Your task to perform on an android device: turn off notifications in google photos Image 0: 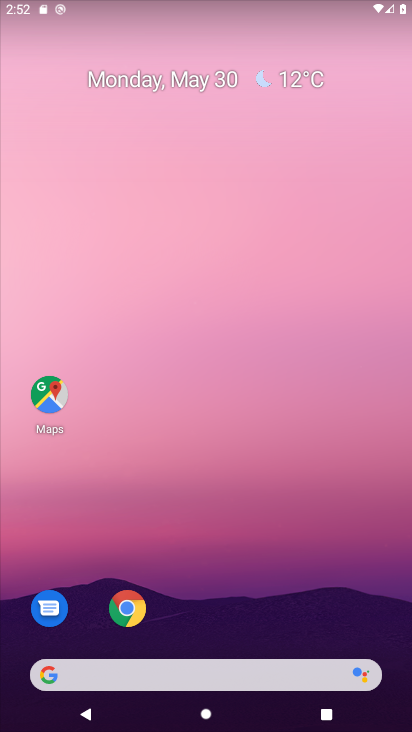
Step 0: press home button
Your task to perform on an android device: turn off notifications in google photos Image 1: 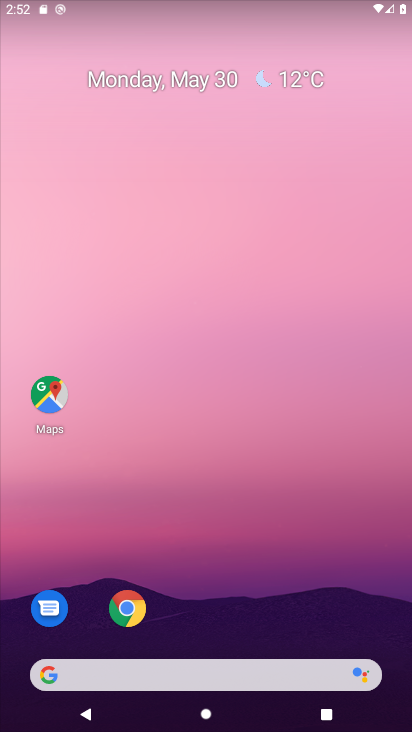
Step 1: drag from (274, 611) to (237, 22)
Your task to perform on an android device: turn off notifications in google photos Image 2: 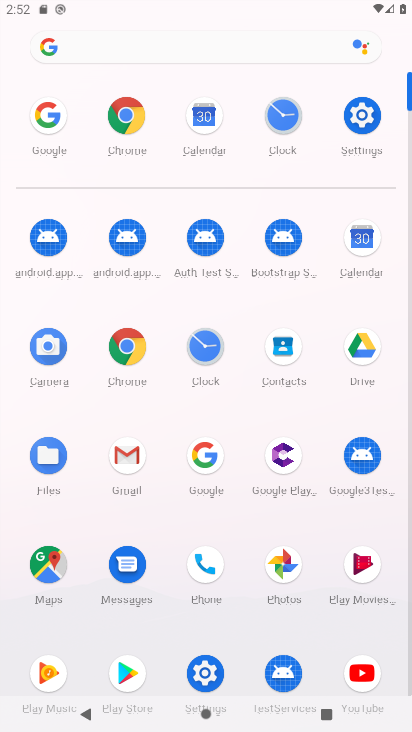
Step 2: click (359, 118)
Your task to perform on an android device: turn off notifications in google photos Image 3: 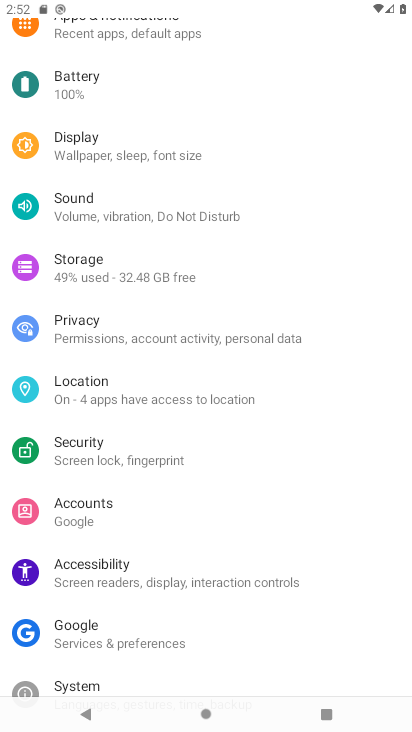
Step 3: press back button
Your task to perform on an android device: turn off notifications in google photos Image 4: 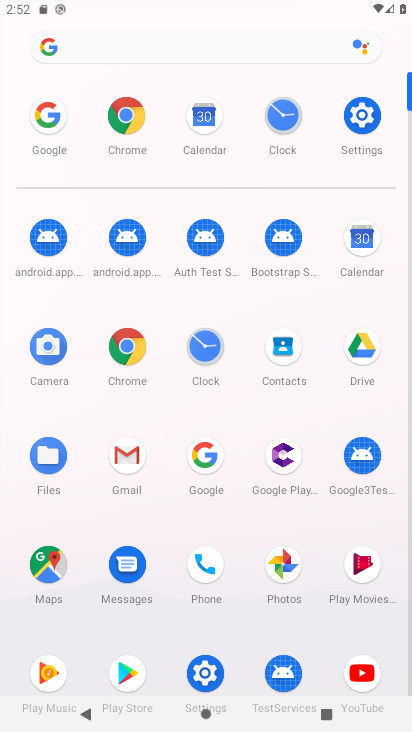
Step 4: click (281, 585)
Your task to perform on an android device: turn off notifications in google photos Image 5: 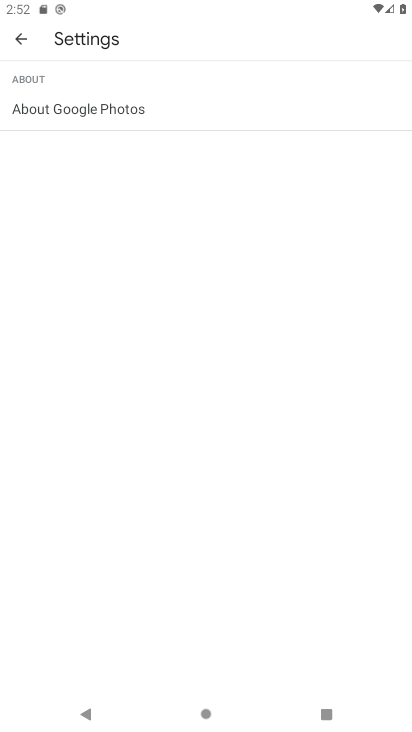
Step 5: click (21, 37)
Your task to perform on an android device: turn off notifications in google photos Image 6: 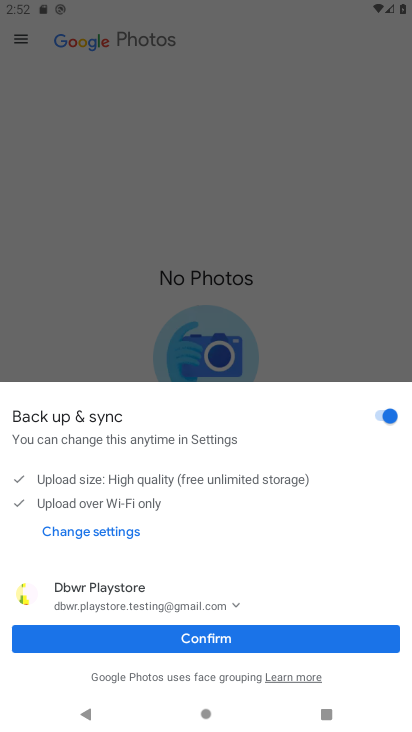
Step 6: press back button
Your task to perform on an android device: turn off notifications in google photos Image 7: 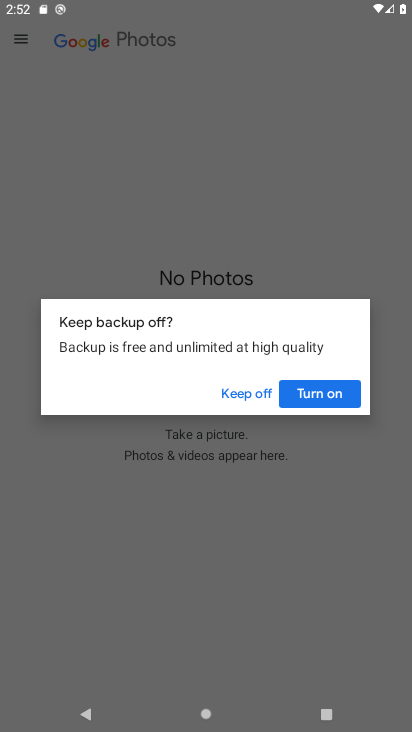
Step 7: press back button
Your task to perform on an android device: turn off notifications in google photos Image 8: 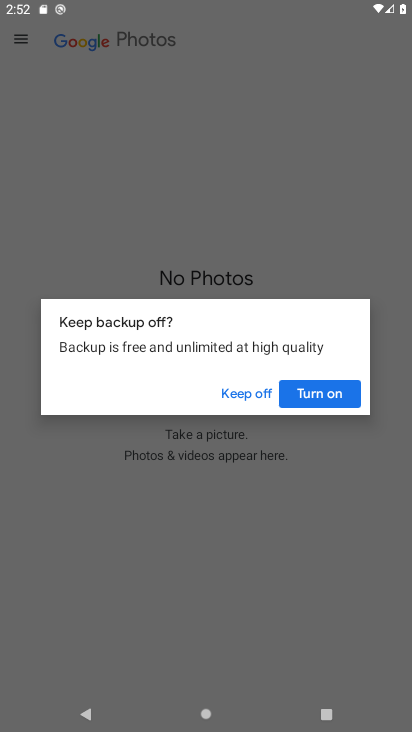
Step 8: press home button
Your task to perform on an android device: turn off notifications in google photos Image 9: 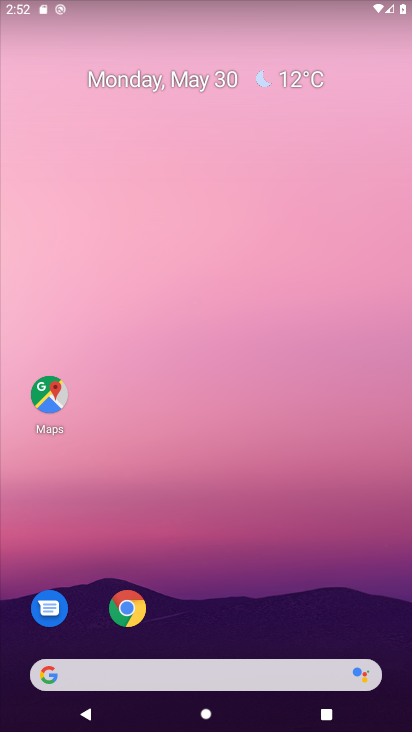
Step 9: drag from (271, 616) to (209, 59)
Your task to perform on an android device: turn off notifications in google photos Image 10: 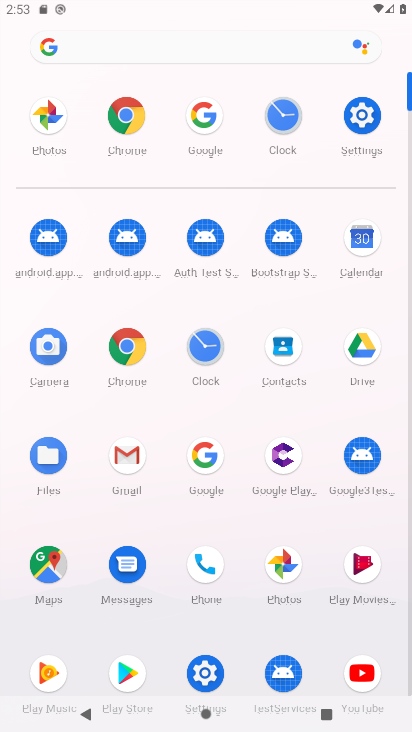
Step 10: click (281, 567)
Your task to perform on an android device: turn off notifications in google photos Image 11: 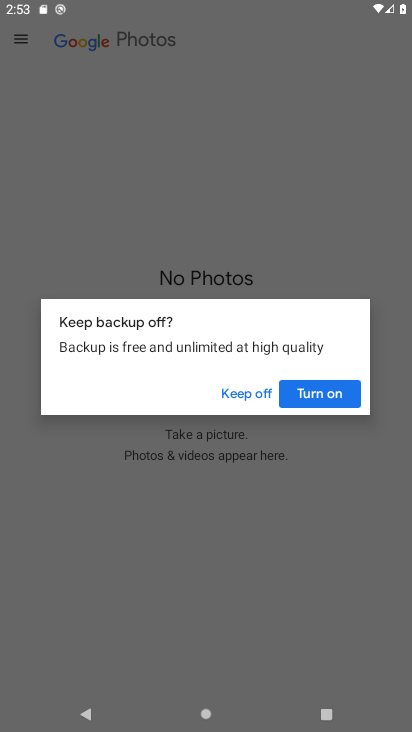
Step 11: click (340, 397)
Your task to perform on an android device: turn off notifications in google photos Image 12: 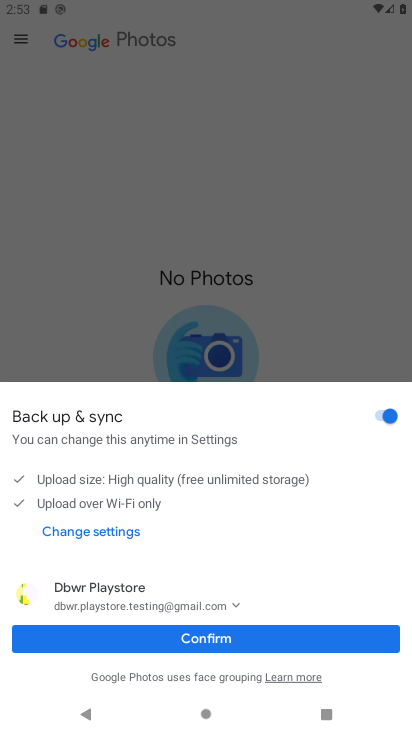
Step 12: click (220, 638)
Your task to perform on an android device: turn off notifications in google photos Image 13: 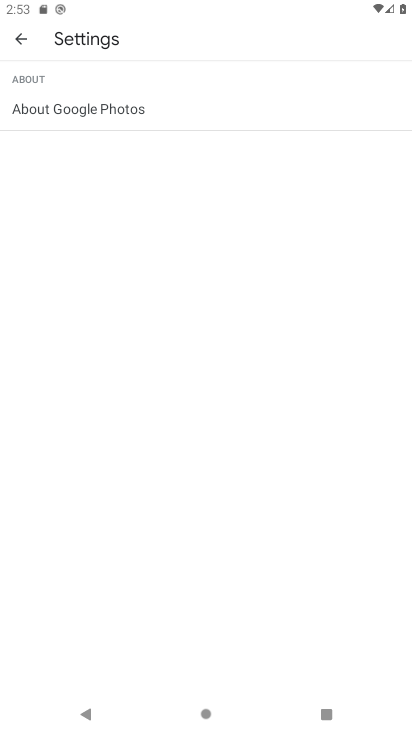
Step 13: click (27, 37)
Your task to perform on an android device: turn off notifications in google photos Image 14: 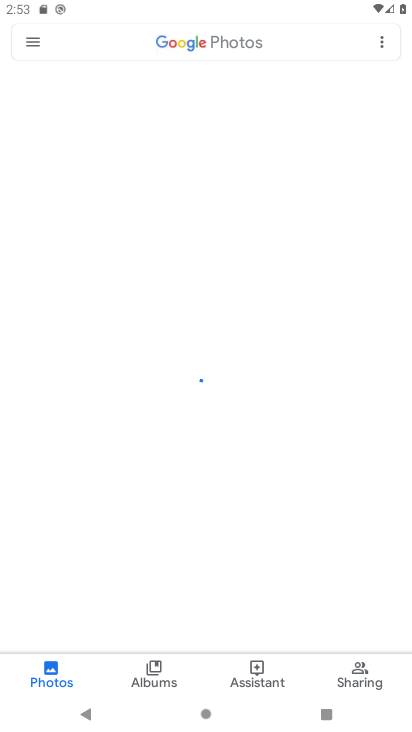
Step 14: click (32, 39)
Your task to perform on an android device: turn off notifications in google photos Image 15: 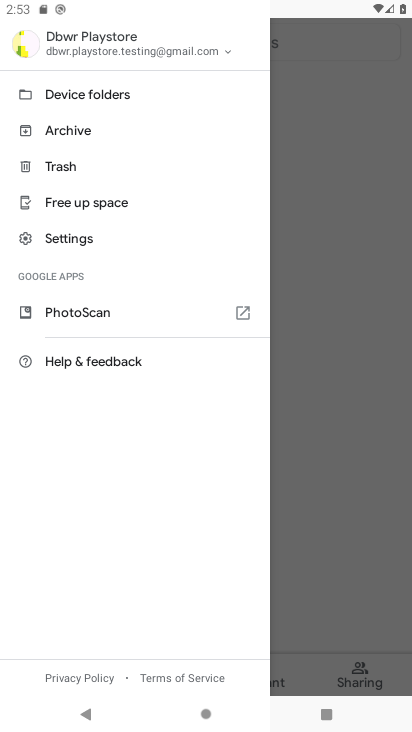
Step 15: click (122, 238)
Your task to perform on an android device: turn off notifications in google photos Image 16: 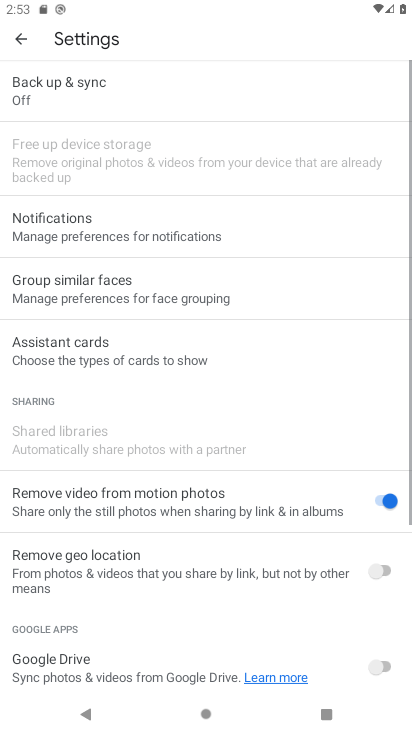
Step 16: click (157, 98)
Your task to perform on an android device: turn off notifications in google photos Image 17: 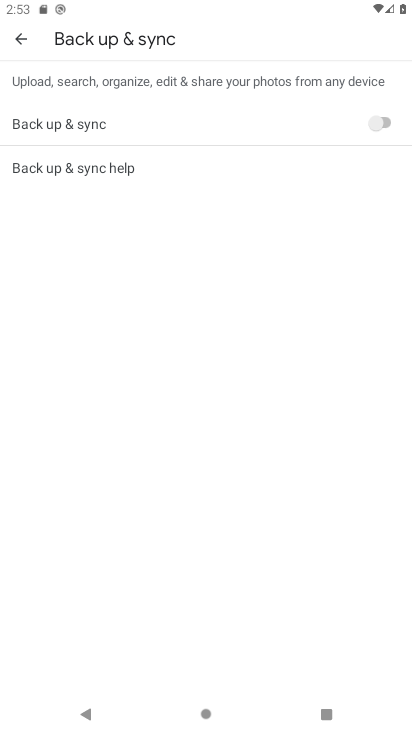
Step 17: task complete